Your task to perform on an android device: What's the weather like in Tokyo? Image 0: 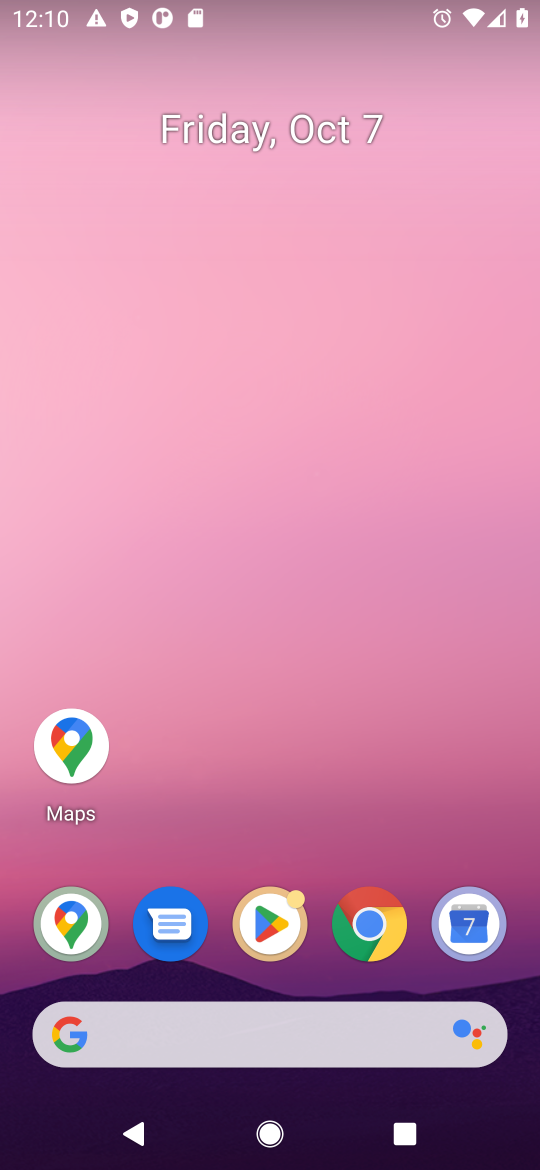
Step 0: click (379, 925)
Your task to perform on an android device: What's the weather like in Tokyo? Image 1: 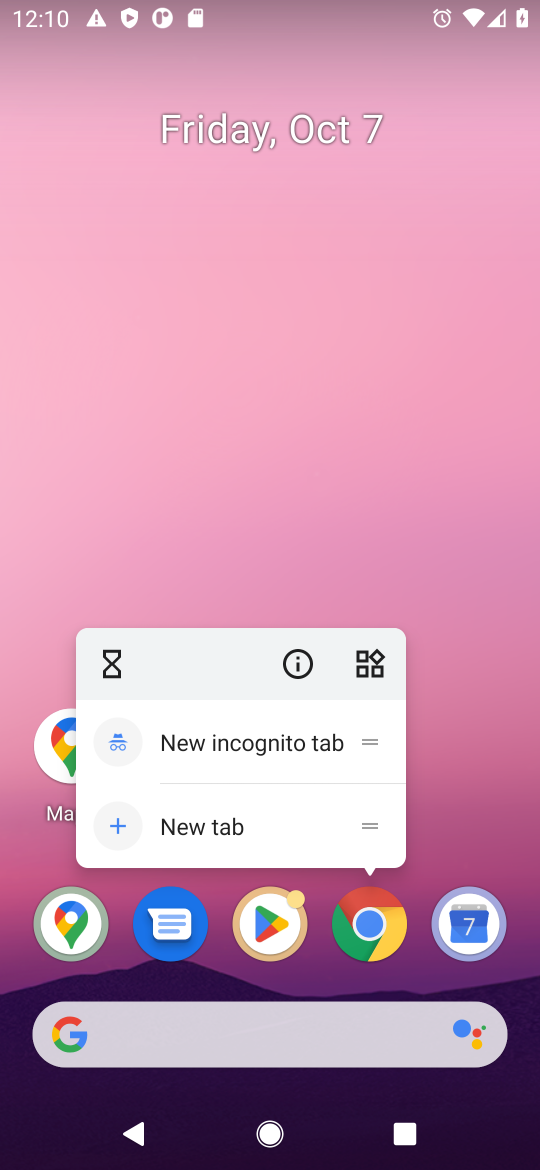
Step 1: click (364, 929)
Your task to perform on an android device: What's the weather like in Tokyo? Image 2: 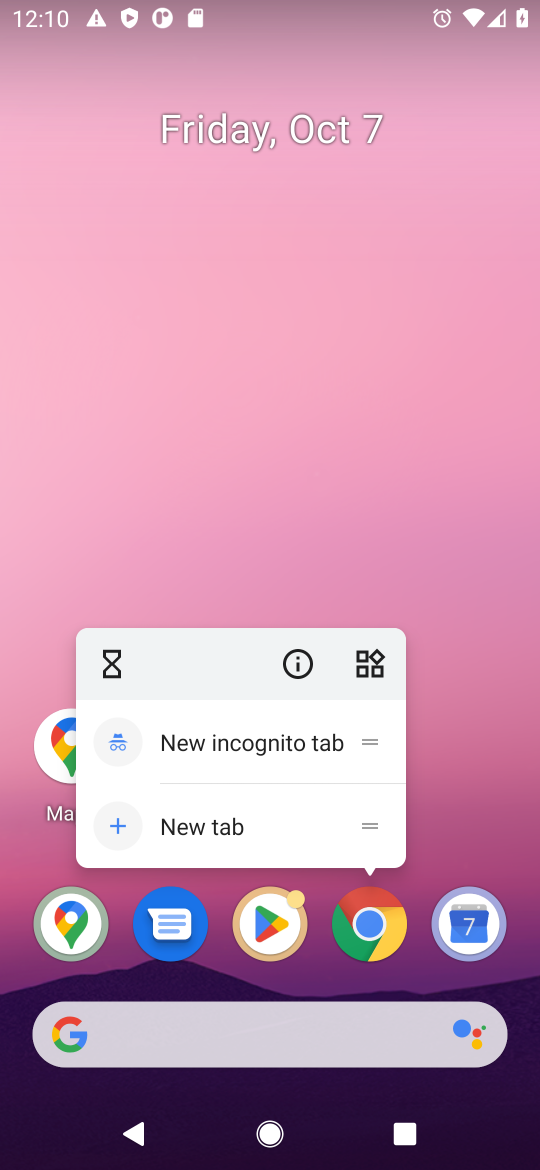
Step 2: click (364, 930)
Your task to perform on an android device: What's the weather like in Tokyo? Image 3: 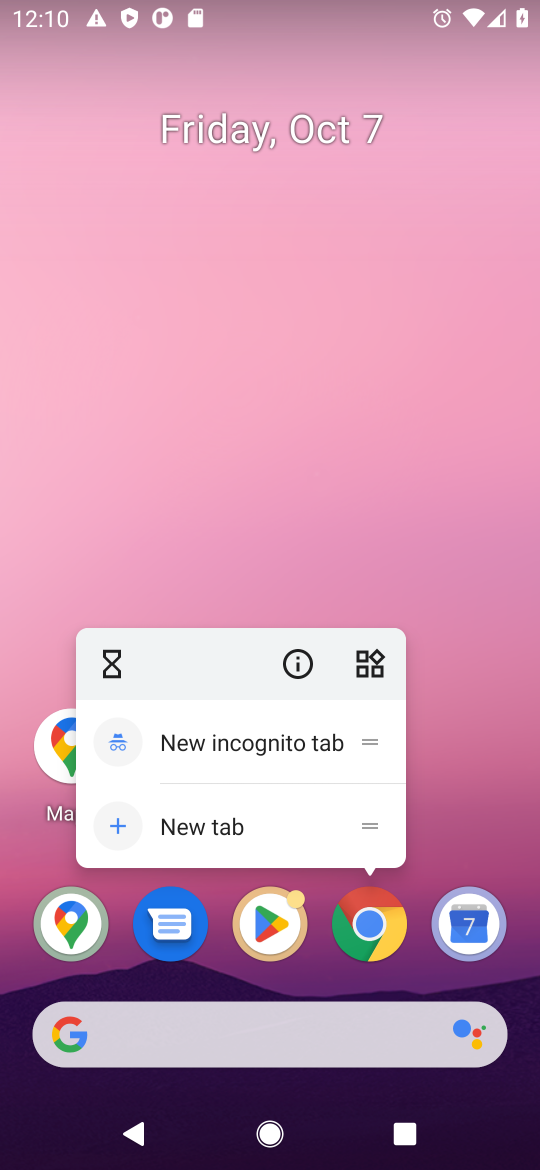
Step 3: click (360, 938)
Your task to perform on an android device: What's the weather like in Tokyo? Image 4: 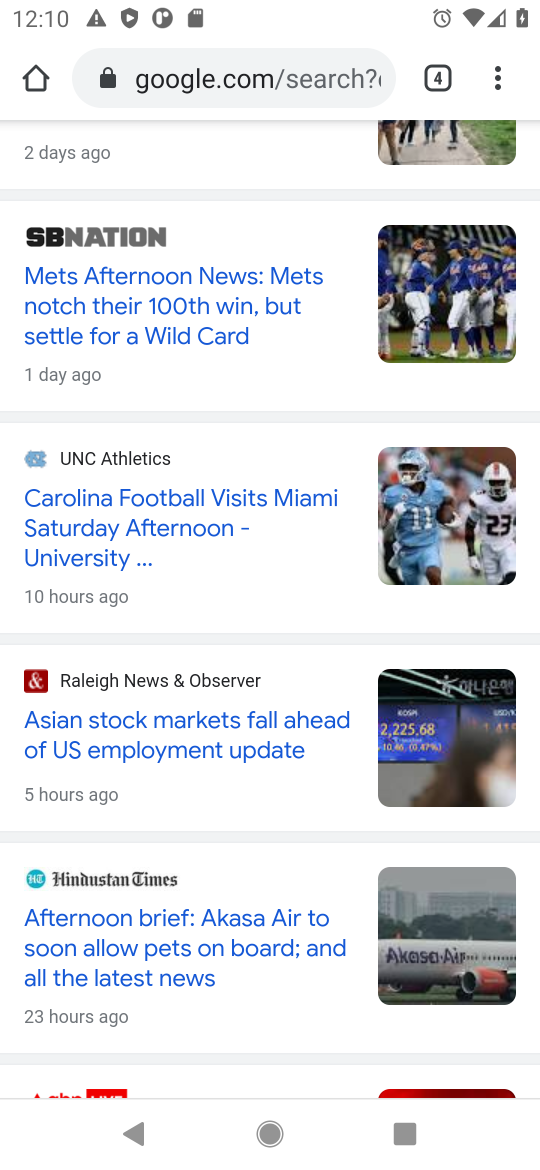
Step 4: click (271, 81)
Your task to perform on an android device: What's the weather like in Tokyo? Image 5: 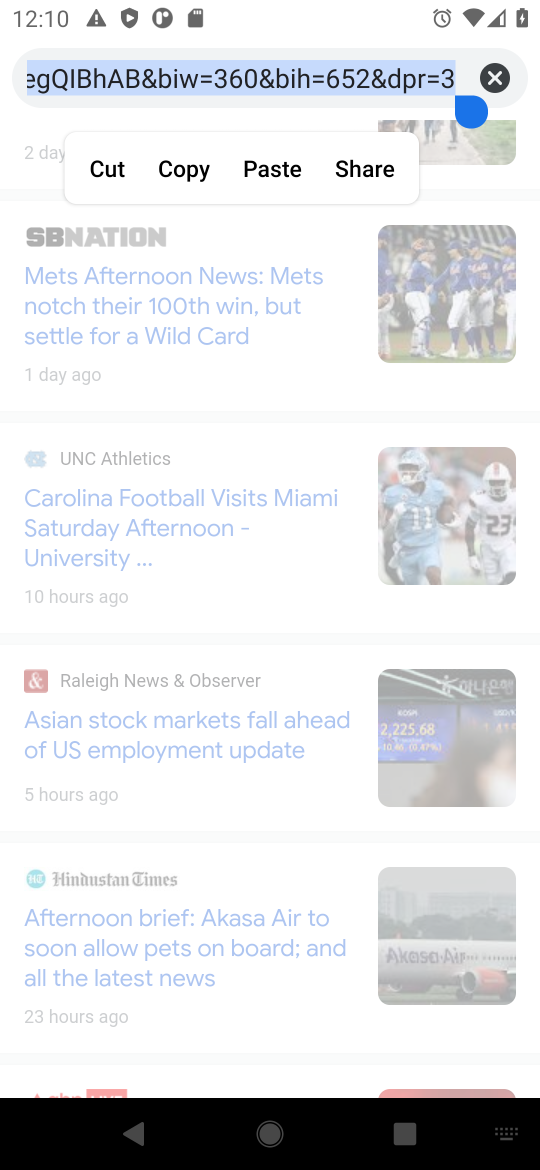
Step 5: click (493, 69)
Your task to perform on an android device: What's the weather like in Tokyo? Image 6: 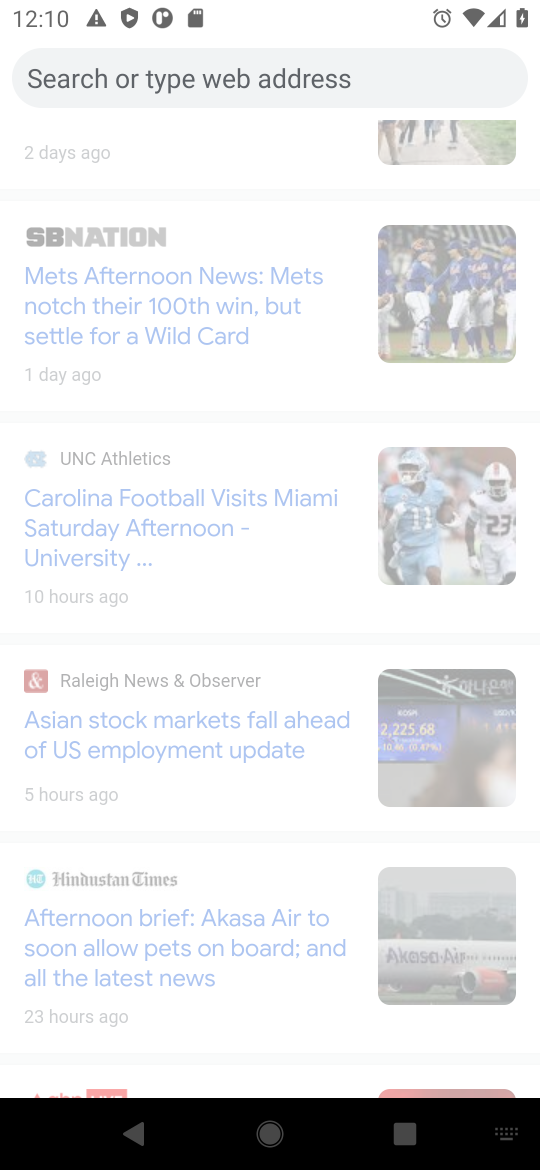
Step 6: type "weather like in Tokyo"
Your task to perform on an android device: What's the weather like in Tokyo? Image 7: 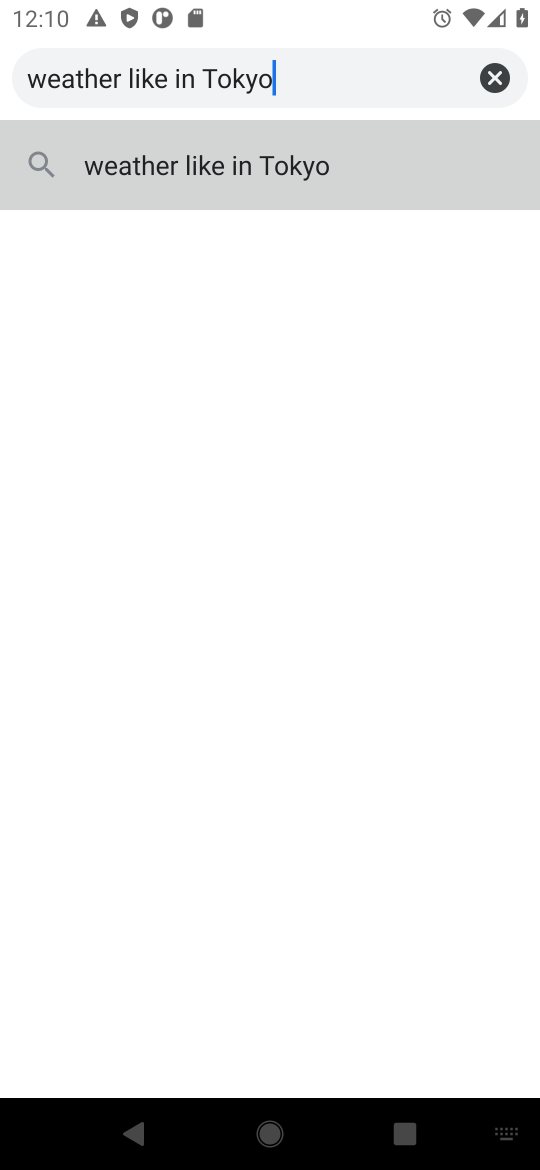
Step 7: click (144, 162)
Your task to perform on an android device: What's the weather like in Tokyo? Image 8: 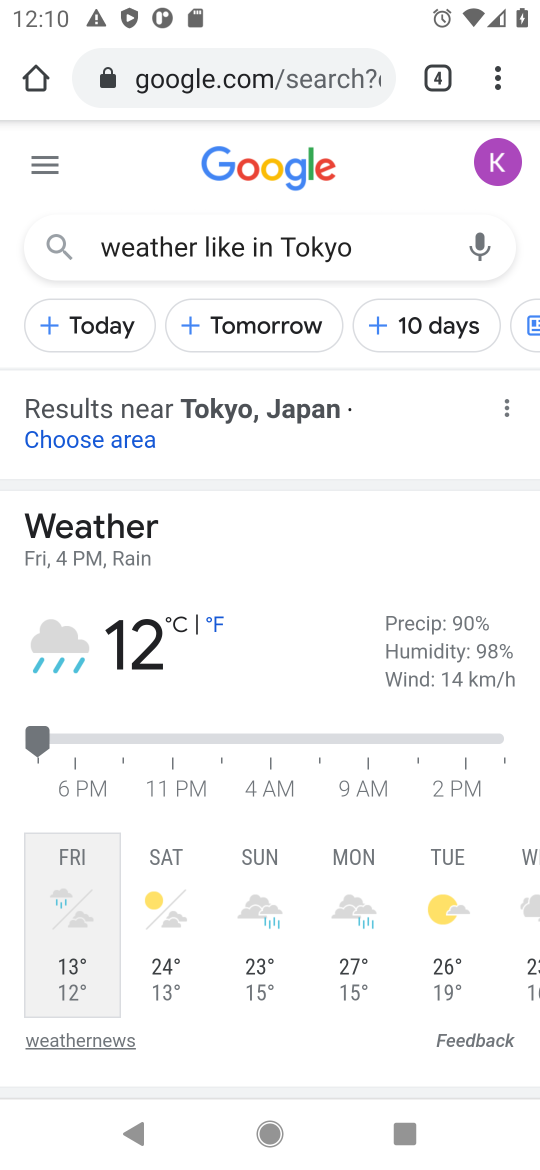
Step 8: task complete